Your task to perform on an android device: Go to accessibility settings Image 0: 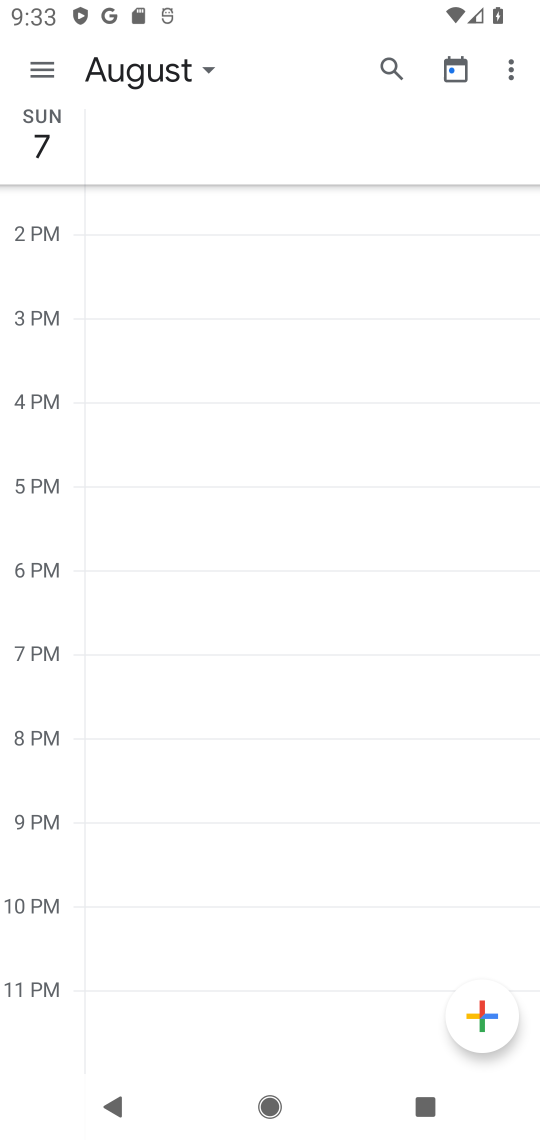
Step 0: press home button
Your task to perform on an android device: Go to accessibility settings Image 1: 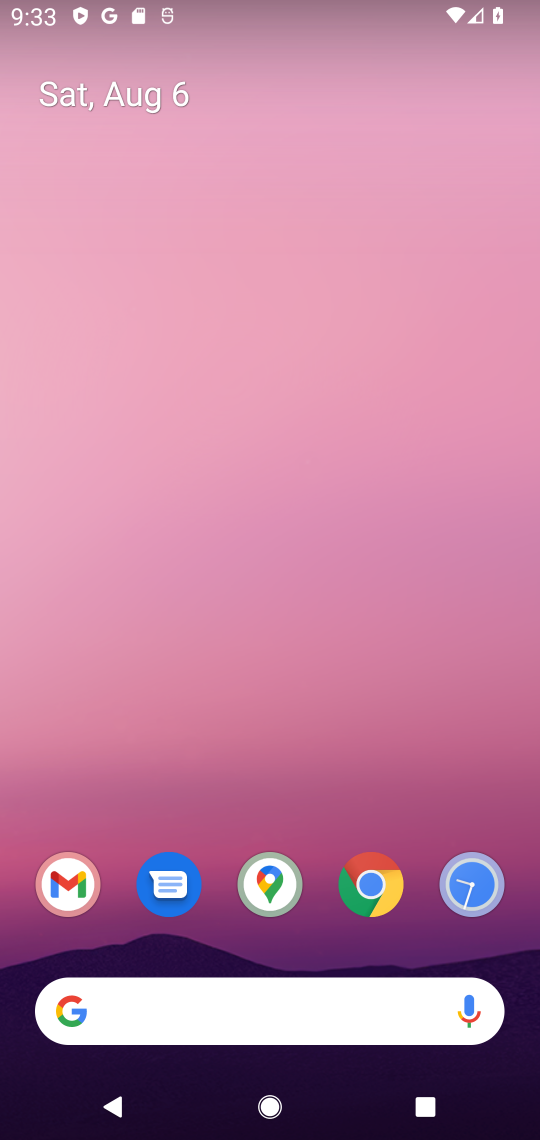
Step 1: drag from (416, 949) to (386, 222)
Your task to perform on an android device: Go to accessibility settings Image 2: 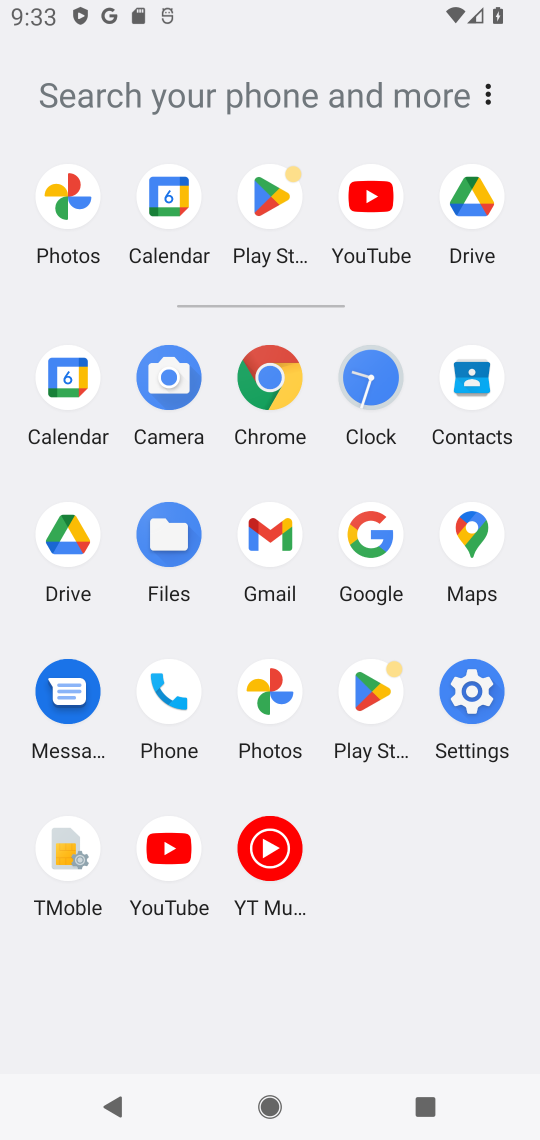
Step 2: click (469, 691)
Your task to perform on an android device: Go to accessibility settings Image 3: 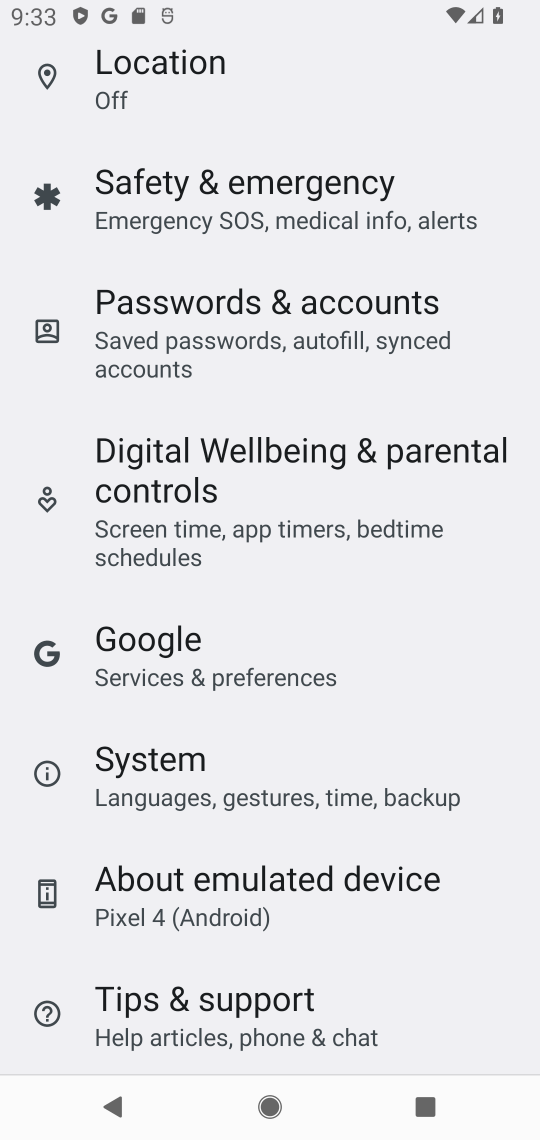
Step 3: drag from (470, 589) to (485, 849)
Your task to perform on an android device: Go to accessibility settings Image 4: 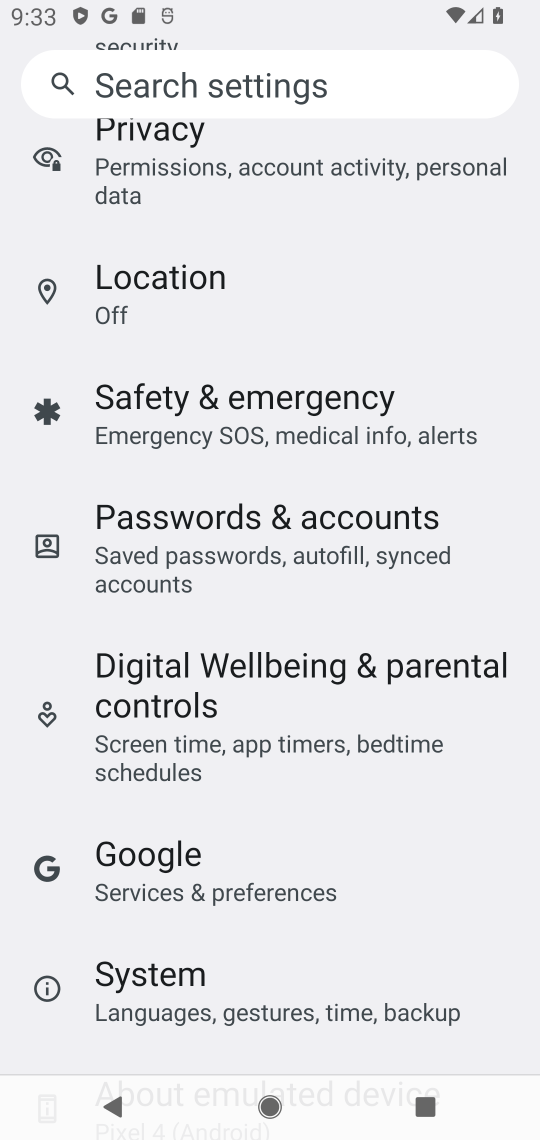
Step 4: drag from (425, 297) to (471, 675)
Your task to perform on an android device: Go to accessibility settings Image 5: 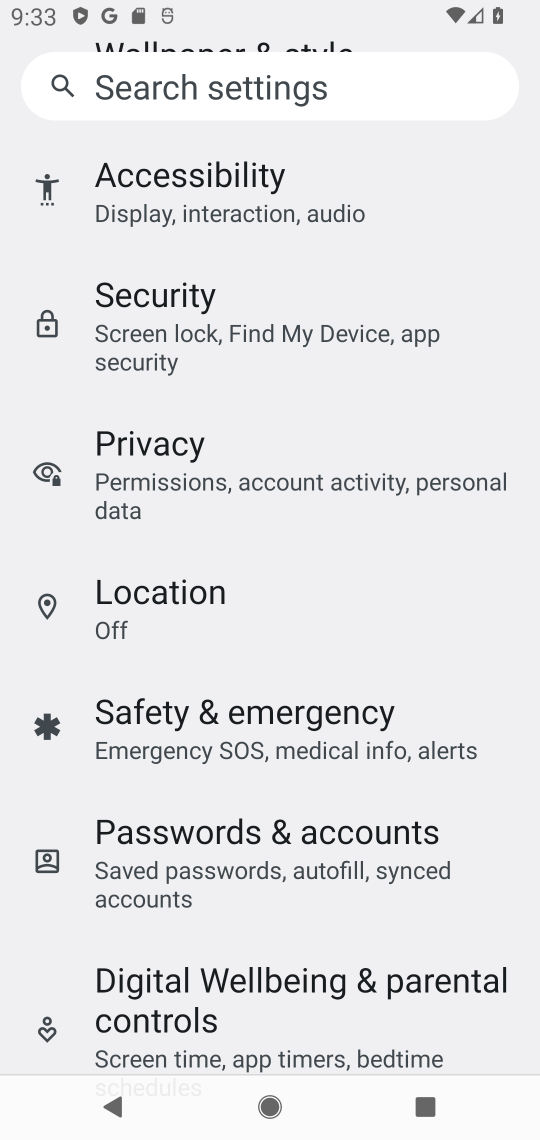
Step 5: drag from (463, 265) to (475, 701)
Your task to perform on an android device: Go to accessibility settings Image 6: 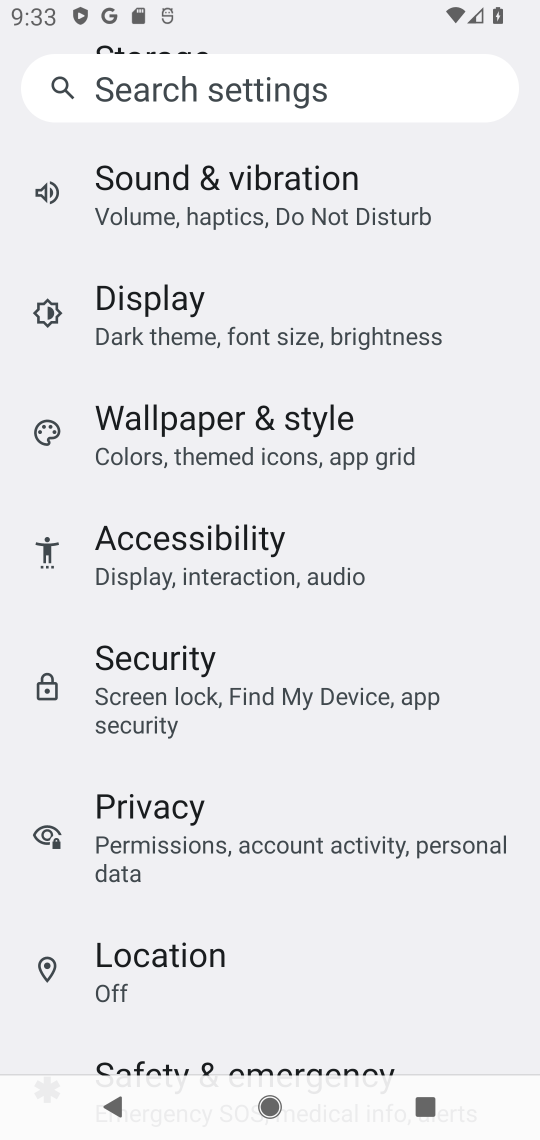
Step 6: click (164, 563)
Your task to perform on an android device: Go to accessibility settings Image 7: 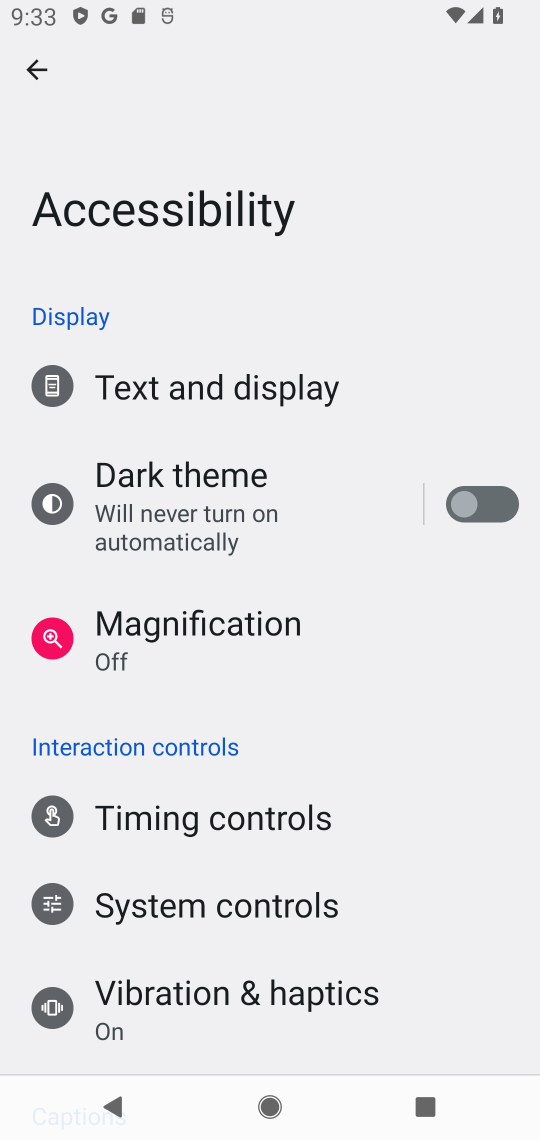
Step 7: task complete